Your task to perform on an android device: turn on improve location accuracy Image 0: 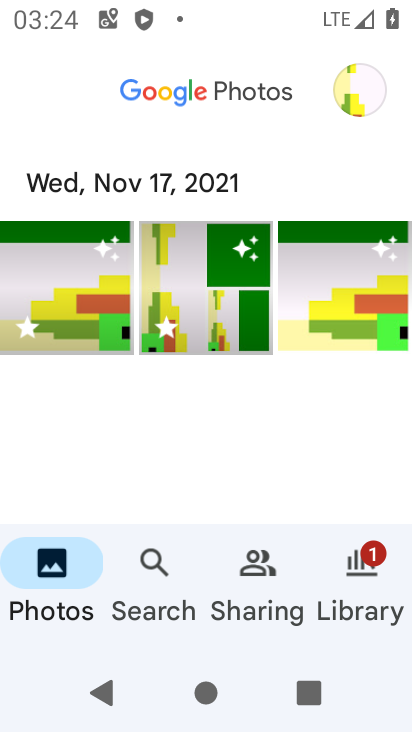
Step 0: press home button
Your task to perform on an android device: turn on improve location accuracy Image 1: 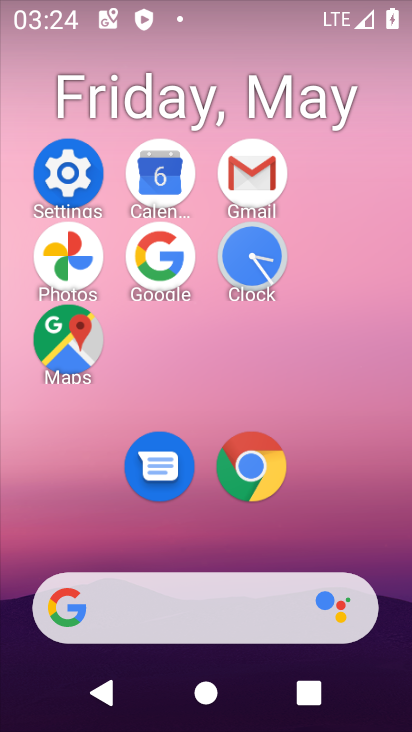
Step 1: click (91, 179)
Your task to perform on an android device: turn on improve location accuracy Image 2: 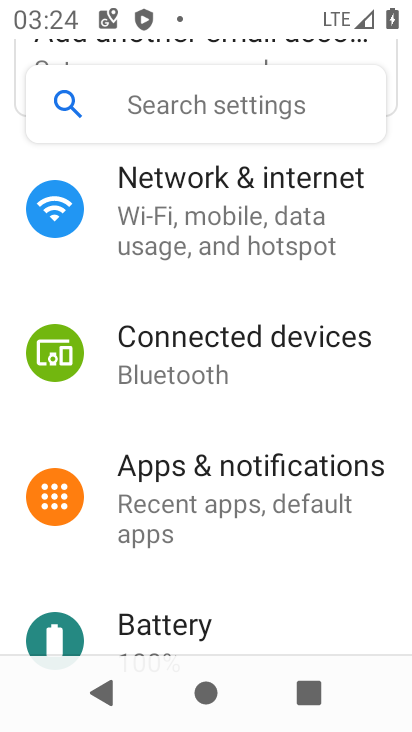
Step 2: drag from (230, 554) to (261, 148)
Your task to perform on an android device: turn on improve location accuracy Image 3: 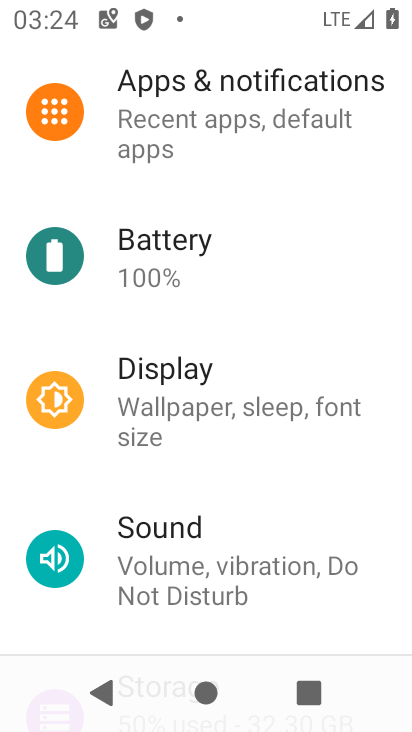
Step 3: drag from (272, 487) to (256, 113)
Your task to perform on an android device: turn on improve location accuracy Image 4: 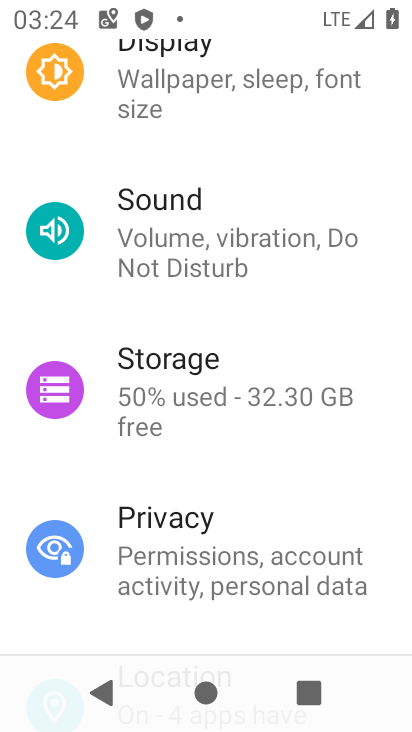
Step 4: drag from (262, 493) to (298, 100)
Your task to perform on an android device: turn on improve location accuracy Image 5: 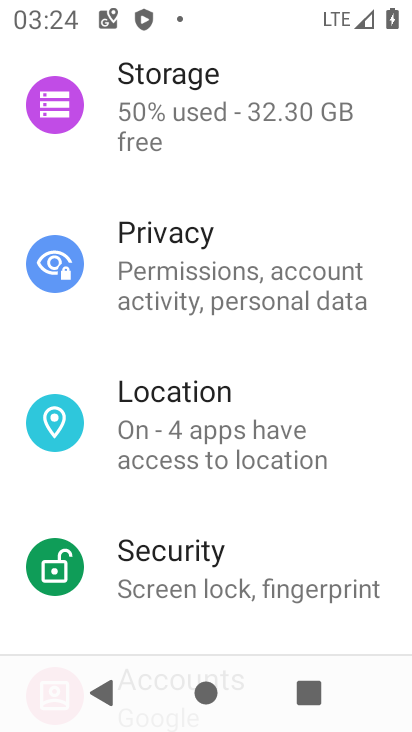
Step 5: click (290, 377)
Your task to perform on an android device: turn on improve location accuracy Image 6: 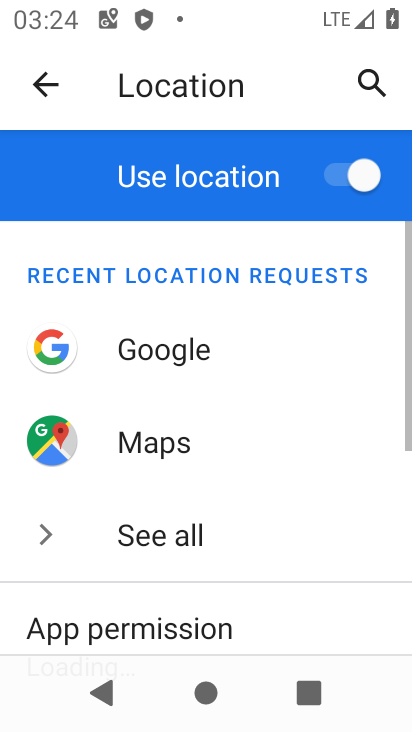
Step 6: drag from (272, 453) to (253, 138)
Your task to perform on an android device: turn on improve location accuracy Image 7: 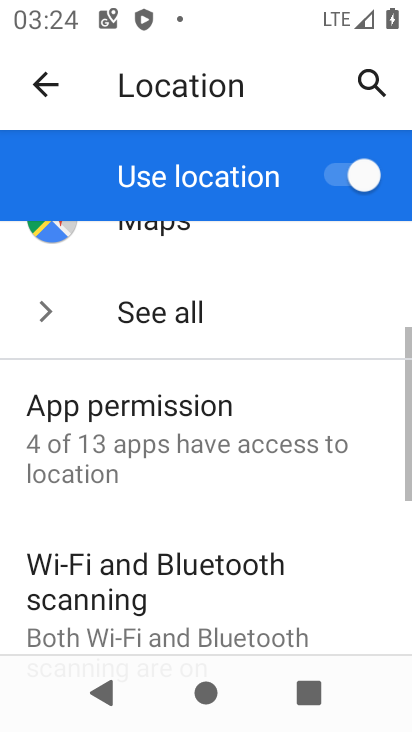
Step 7: drag from (233, 550) to (250, 174)
Your task to perform on an android device: turn on improve location accuracy Image 8: 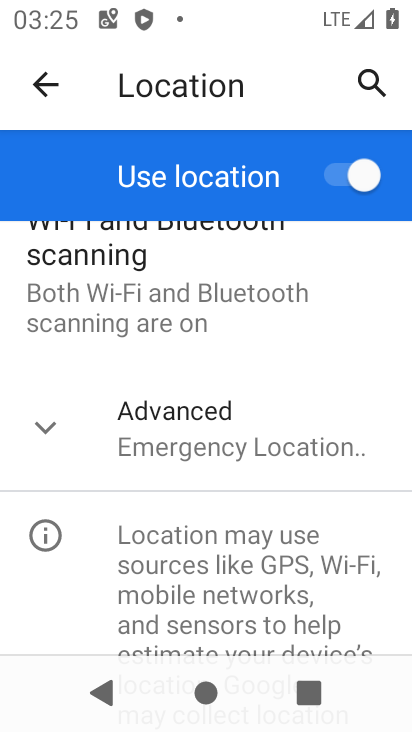
Step 8: click (264, 461)
Your task to perform on an android device: turn on improve location accuracy Image 9: 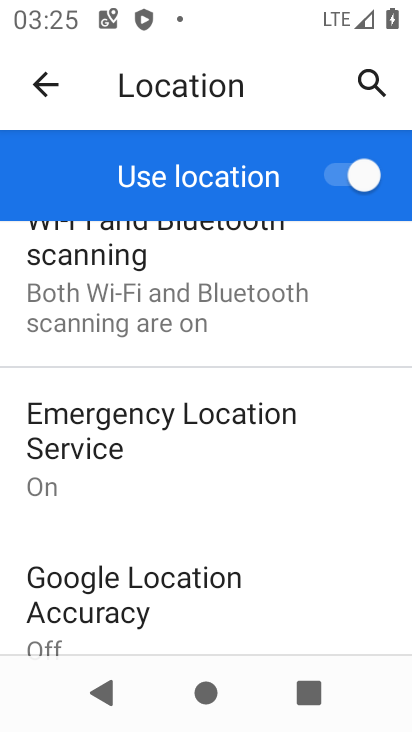
Step 9: click (247, 565)
Your task to perform on an android device: turn on improve location accuracy Image 10: 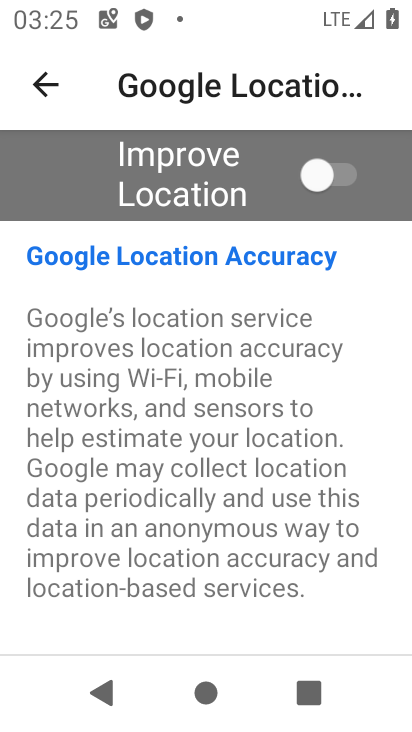
Step 10: click (319, 176)
Your task to perform on an android device: turn on improve location accuracy Image 11: 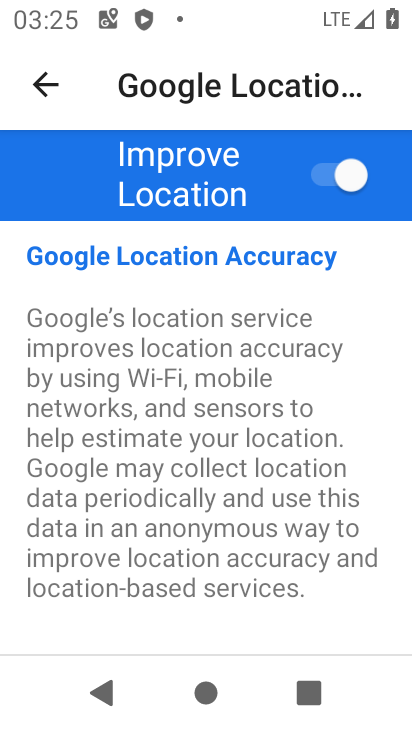
Step 11: task complete